Your task to perform on an android device: When is my next appointment? Image 0: 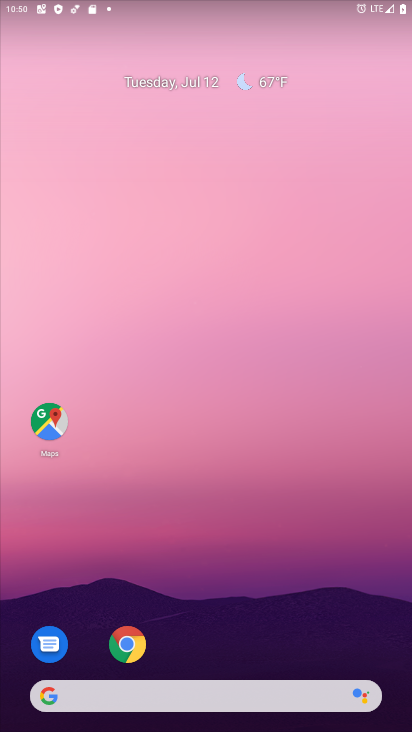
Step 0: drag from (179, 630) to (244, 184)
Your task to perform on an android device: When is my next appointment? Image 1: 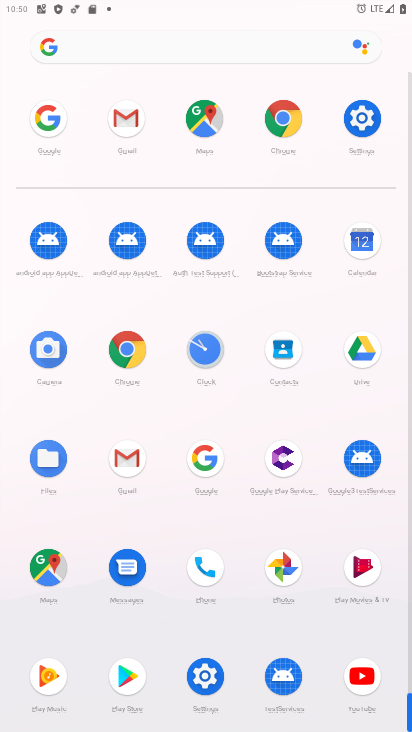
Step 1: click (349, 256)
Your task to perform on an android device: When is my next appointment? Image 2: 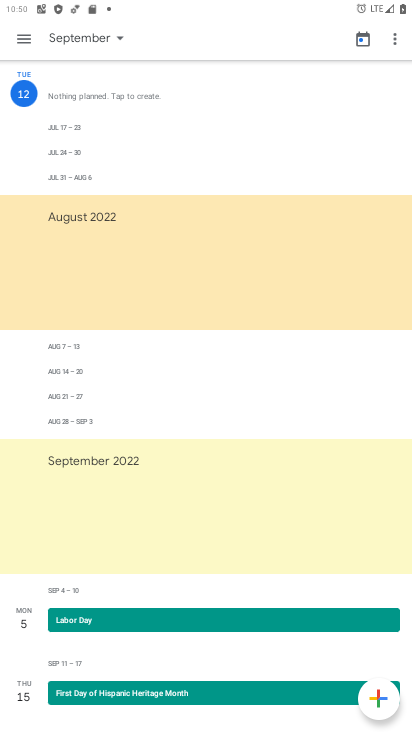
Step 2: click (64, 42)
Your task to perform on an android device: When is my next appointment? Image 3: 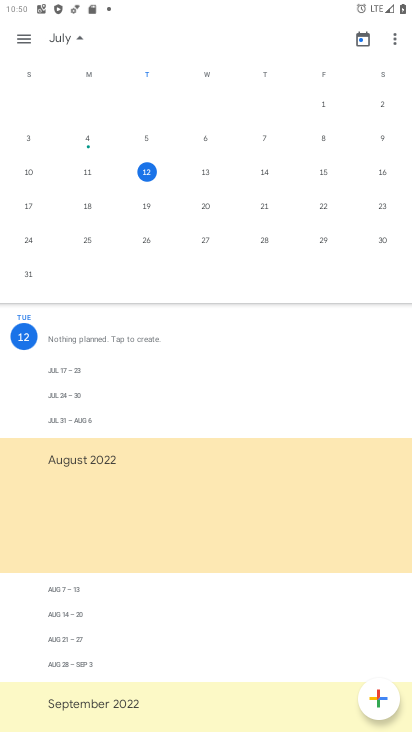
Step 3: drag from (49, 226) to (405, 196)
Your task to perform on an android device: When is my next appointment? Image 4: 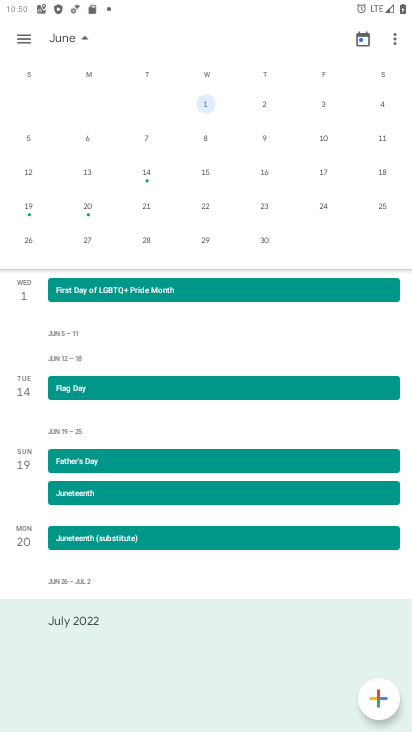
Step 4: drag from (338, 183) to (6, 171)
Your task to perform on an android device: When is my next appointment? Image 5: 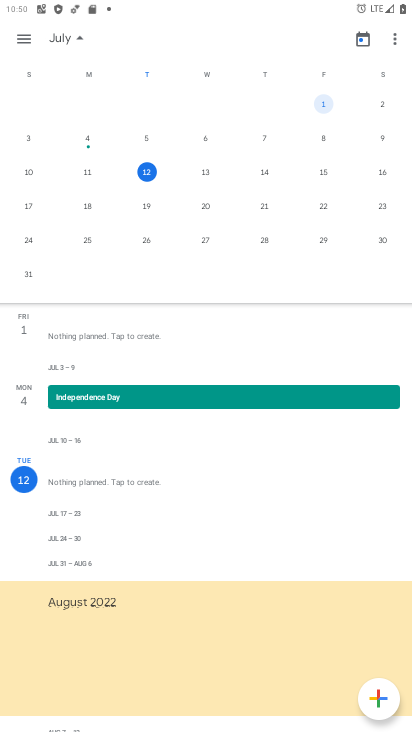
Step 5: drag from (336, 191) to (3, 207)
Your task to perform on an android device: When is my next appointment? Image 6: 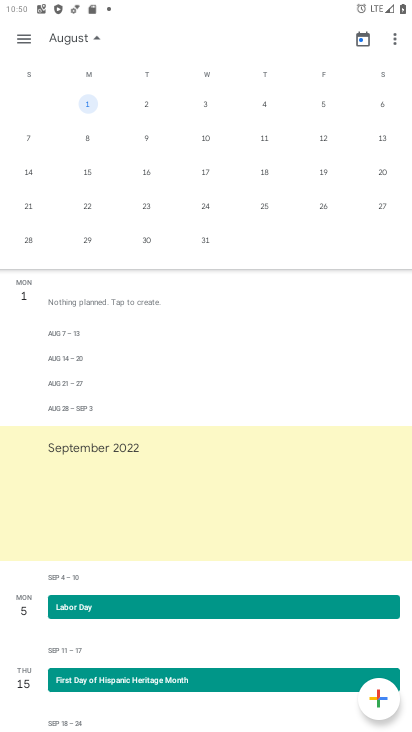
Step 6: drag from (70, 208) to (399, 163)
Your task to perform on an android device: When is my next appointment? Image 7: 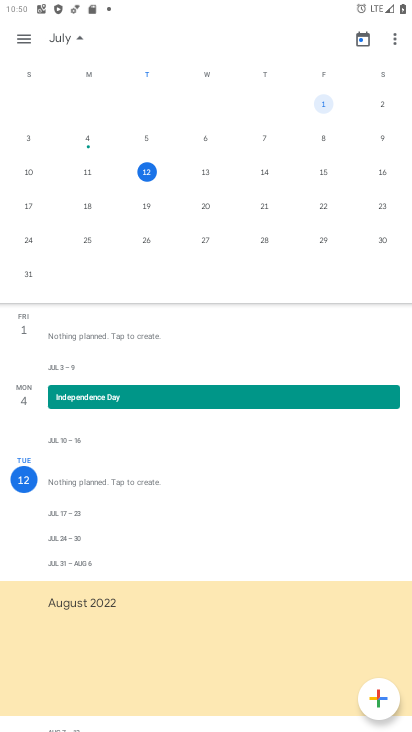
Step 7: click (155, 172)
Your task to perform on an android device: When is my next appointment? Image 8: 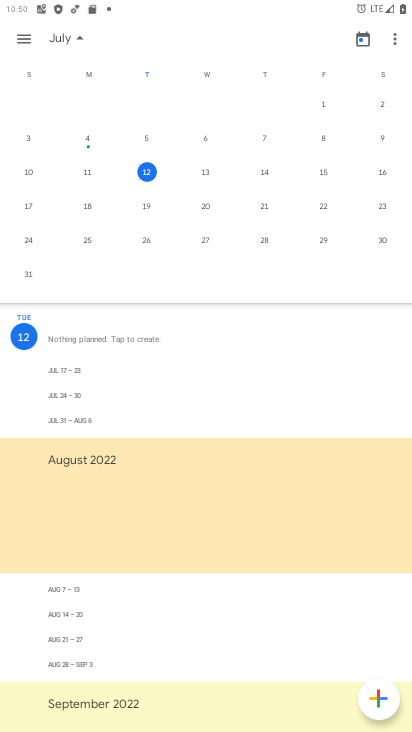
Step 8: task complete